Your task to perform on an android device: Show me popular videos on Youtube Image 0: 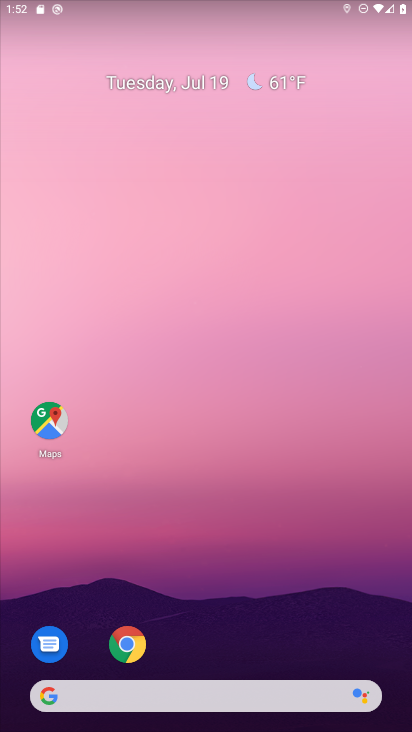
Step 0: drag from (197, 667) to (205, 107)
Your task to perform on an android device: Show me popular videos on Youtube Image 1: 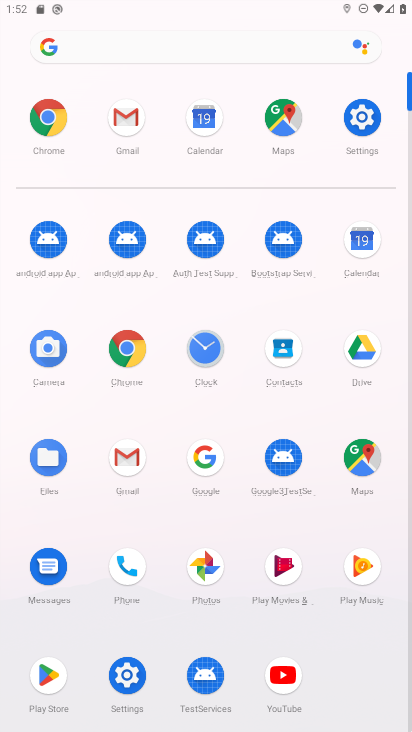
Step 1: click (283, 682)
Your task to perform on an android device: Show me popular videos on Youtube Image 2: 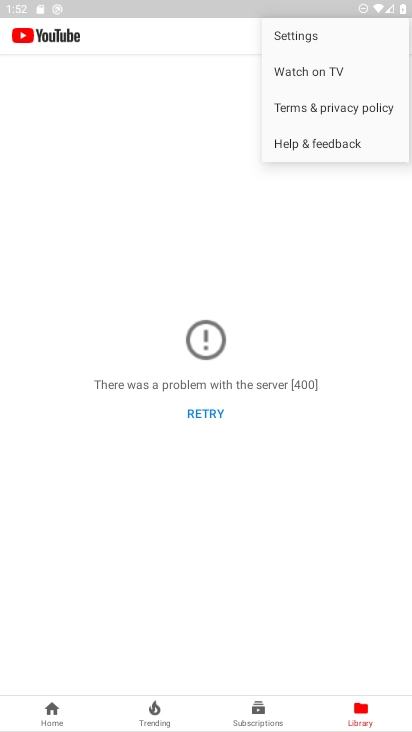
Step 2: click (148, 711)
Your task to perform on an android device: Show me popular videos on Youtube Image 3: 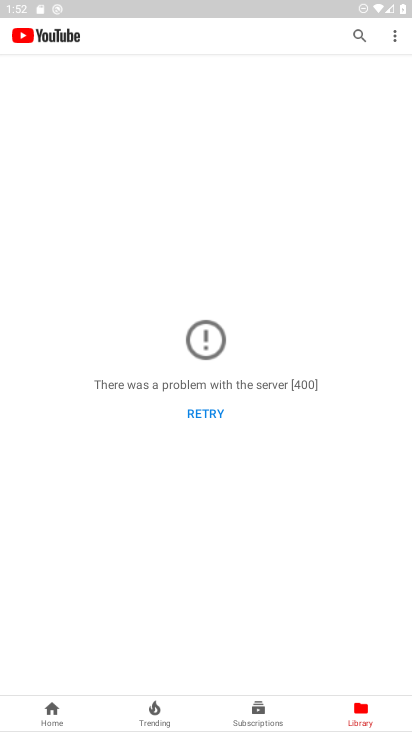
Step 3: click (150, 710)
Your task to perform on an android device: Show me popular videos on Youtube Image 4: 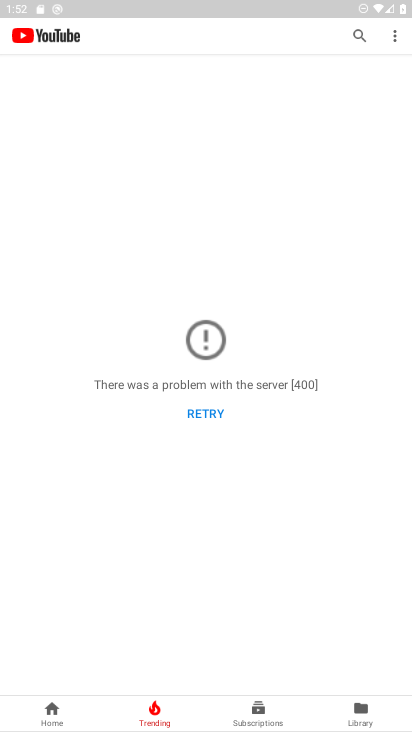
Step 4: task complete